Your task to perform on an android device: add a contact Image 0: 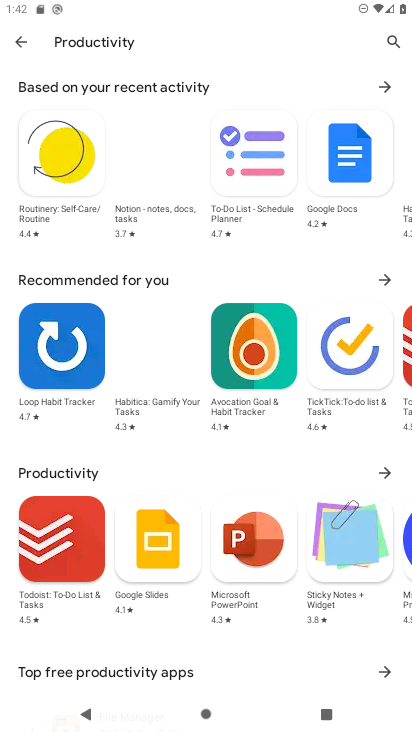
Step 0: press home button
Your task to perform on an android device: add a contact Image 1: 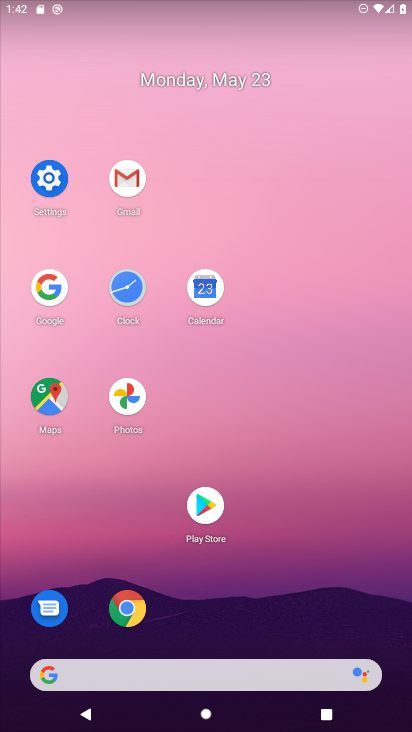
Step 1: drag from (254, 589) to (295, 76)
Your task to perform on an android device: add a contact Image 2: 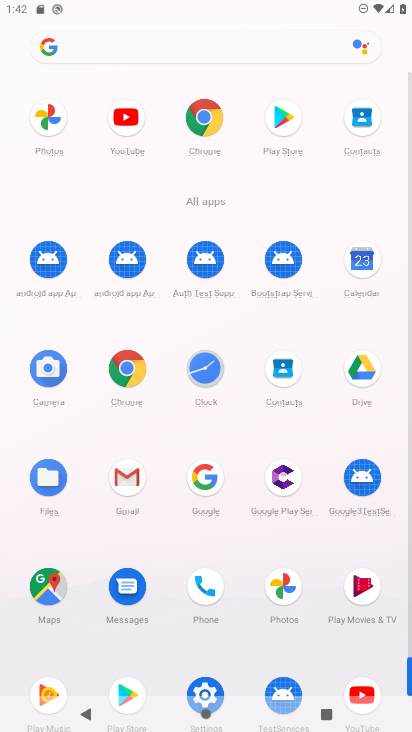
Step 2: click (359, 117)
Your task to perform on an android device: add a contact Image 3: 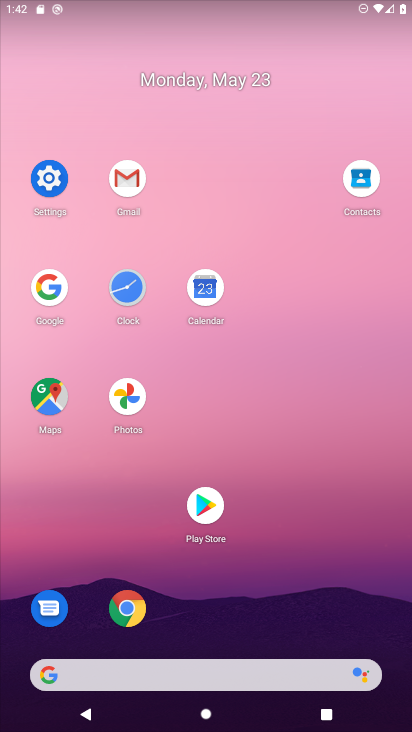
Step 3: click (357, 177)
Your task to perform on an android device: add a contact Image 4: 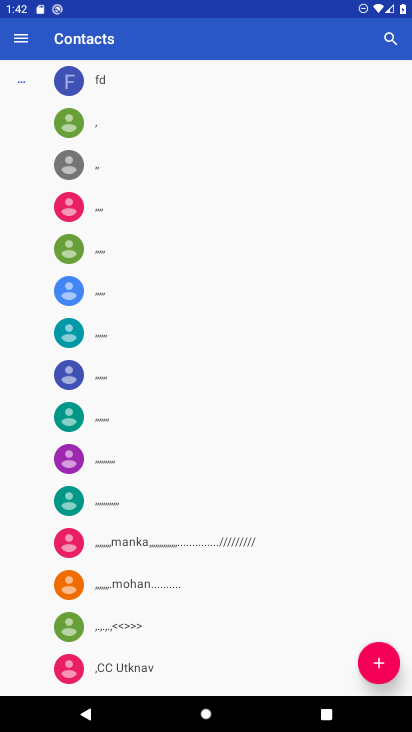
Step 4: click (383, 662)
Your task to perform on an android device: add a contact Image 5: 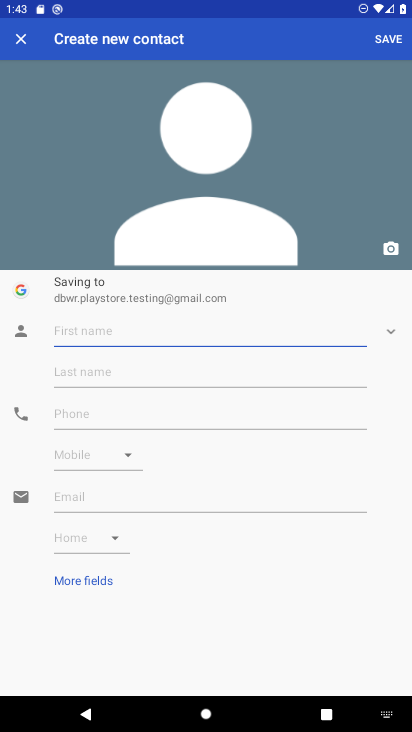
Step 5: type "abv"
Your task to perform on an android device: add a contact Image 6: 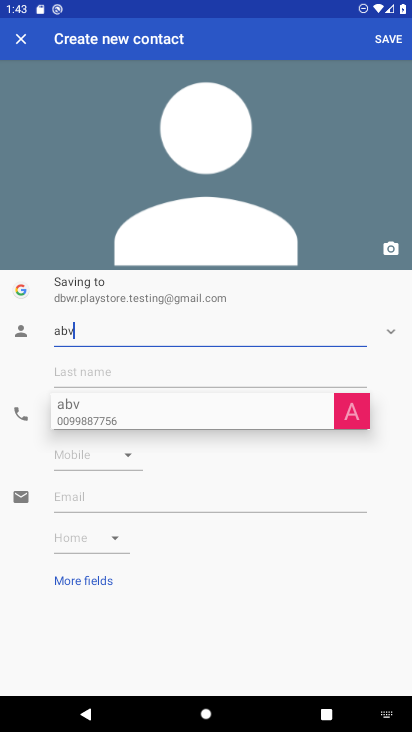
Step 6: click (121, 376)
Your task to perform on an android device: add a contact Image 7: 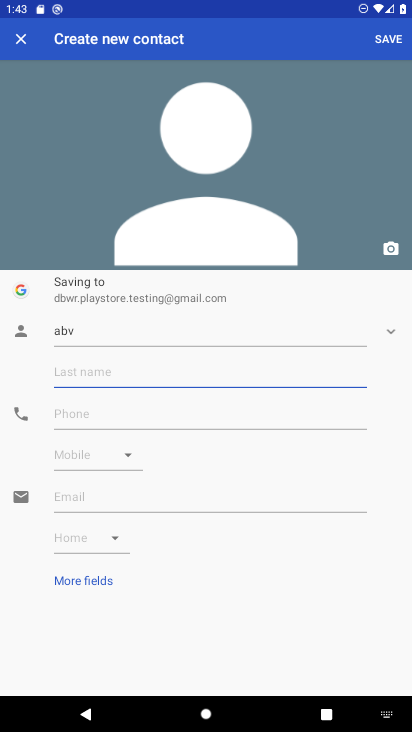
Step 7: type "tte"
Your task to perform on an android device: add a contact Image 8: 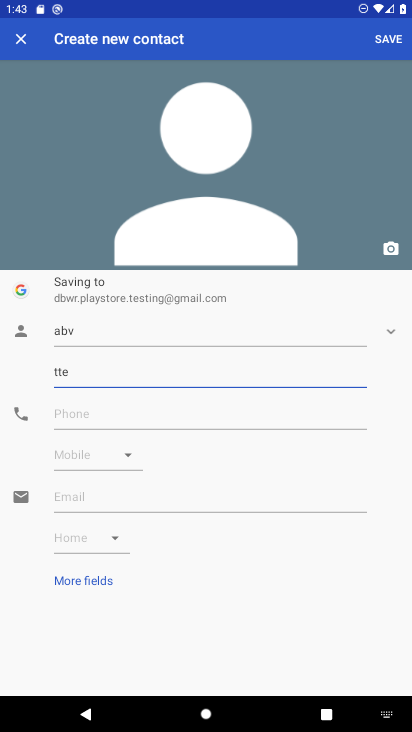
Step 8: click (124, 412)
Your task to perform on an android device: add a contact Image 9: 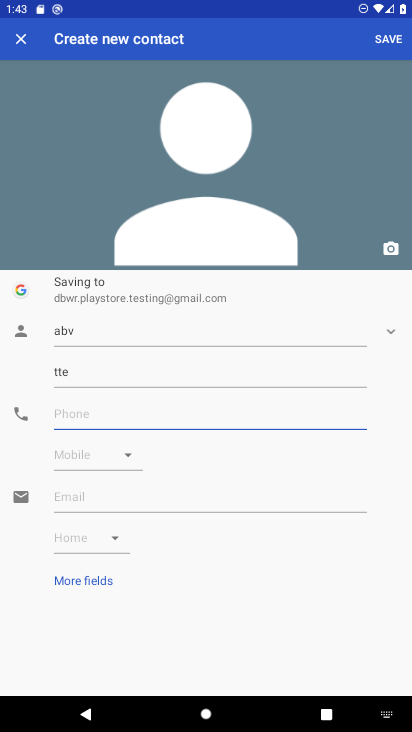
Step 9: type "8877665543"
Your task to perform on an android device: add a contact Image 10: 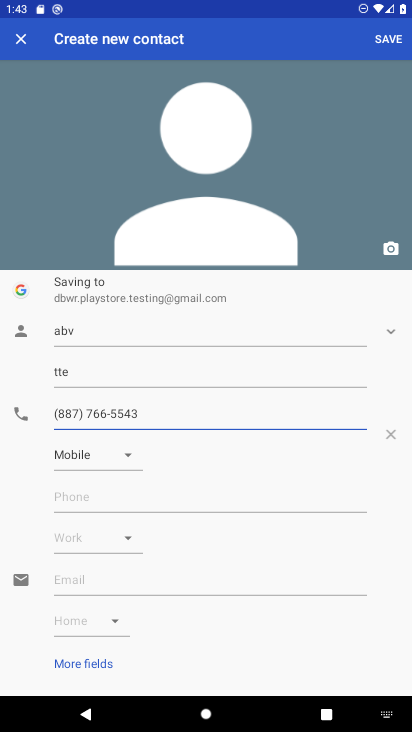
Step 10: click (394, 53)
Your task to perform on an android device: add a contact Image 11: 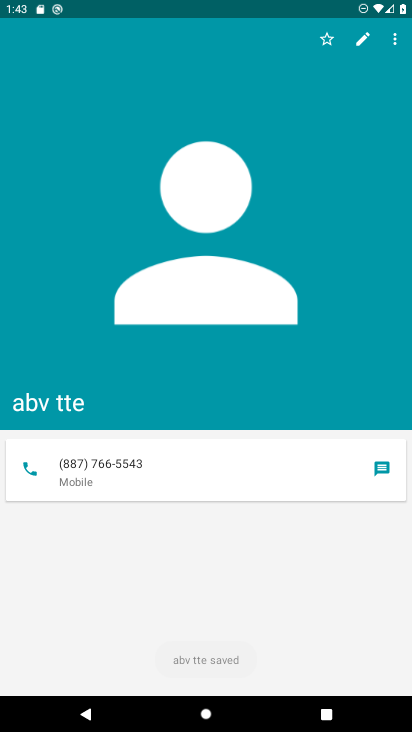
Step 11: task complete